Your task to perform on an android device: What is the recent news? Image 0: 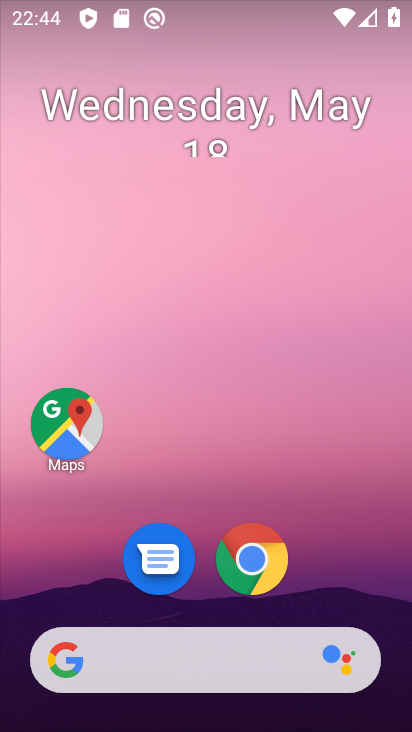
Step 0: drag from (318, 547) to (386, 189)
Your task to perform on an android device: What is the recent news? Image 1: 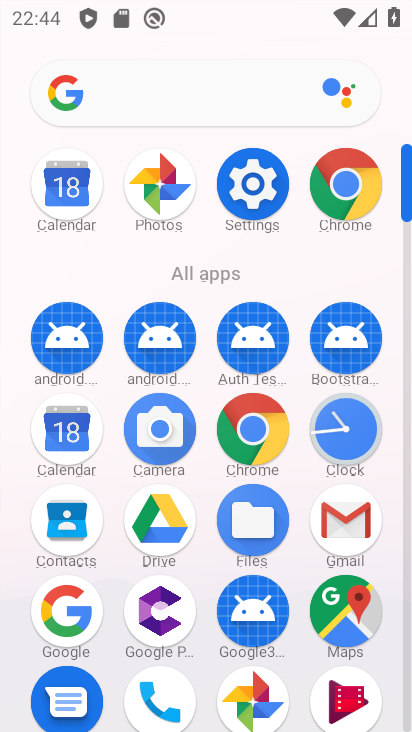
Step 1: click (92, 620)
Your task to perform on an android device: What is the recent news? Image 2: 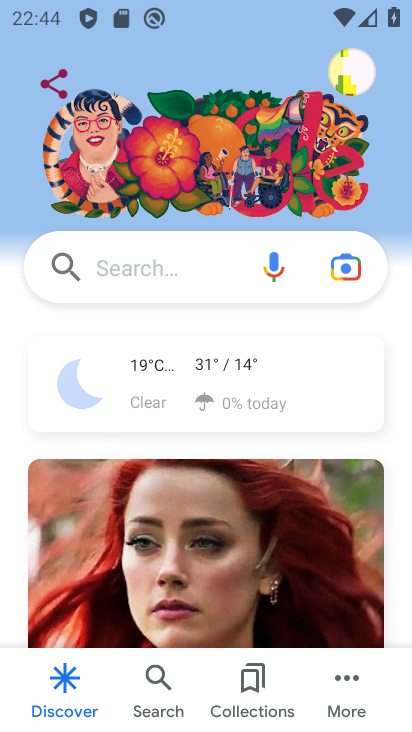
Step 2: click (155, 278)
Your task to perform on an android device: What is the recent news? Image 3: 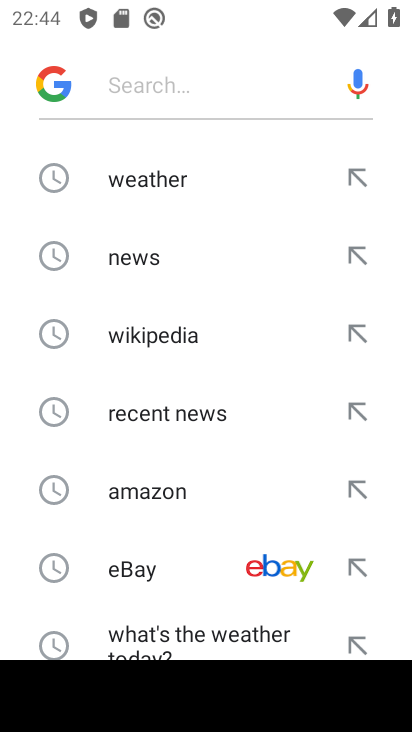
Step 3: click (174, 413)
Your task to perform on an android device: What is the recent news? Image 4: 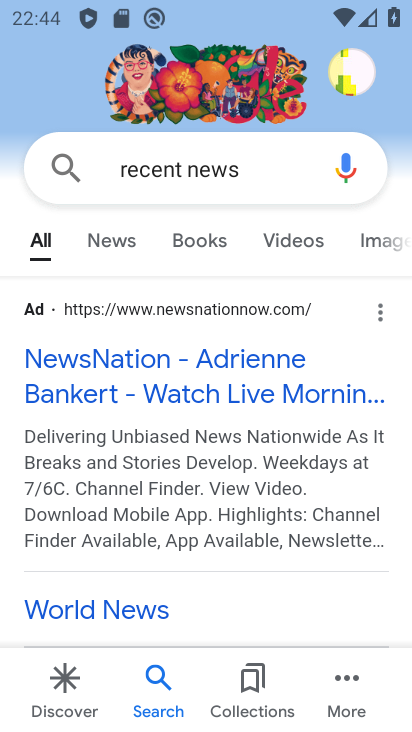
Step 4: task complete